Your task to perform on an android device: Open Yahoo.com Image 0: 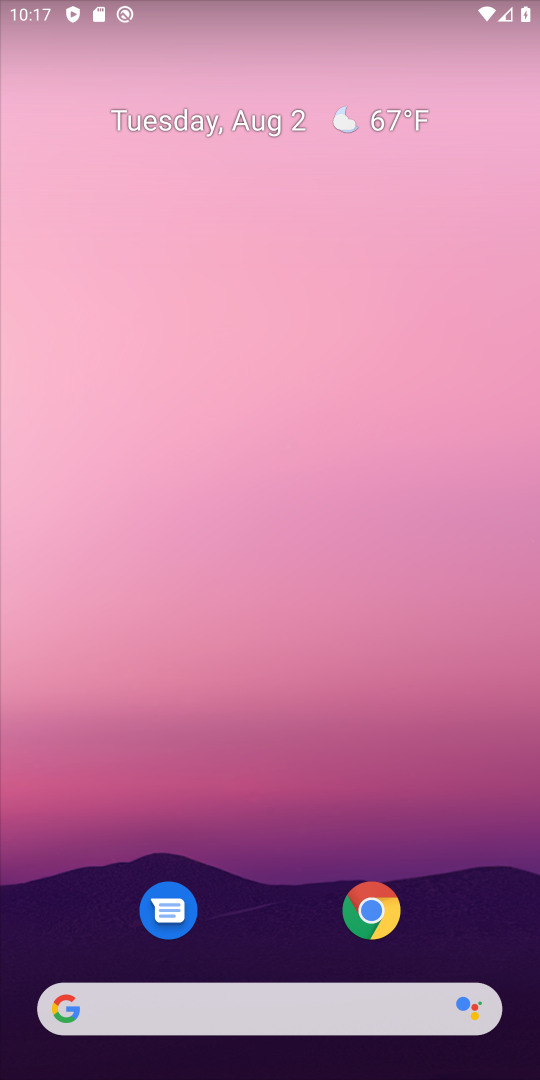
Step 0: drag from (305, 917) to (371, 347)
Your task to perform on an android device: Open Yahoo.com Image 1: 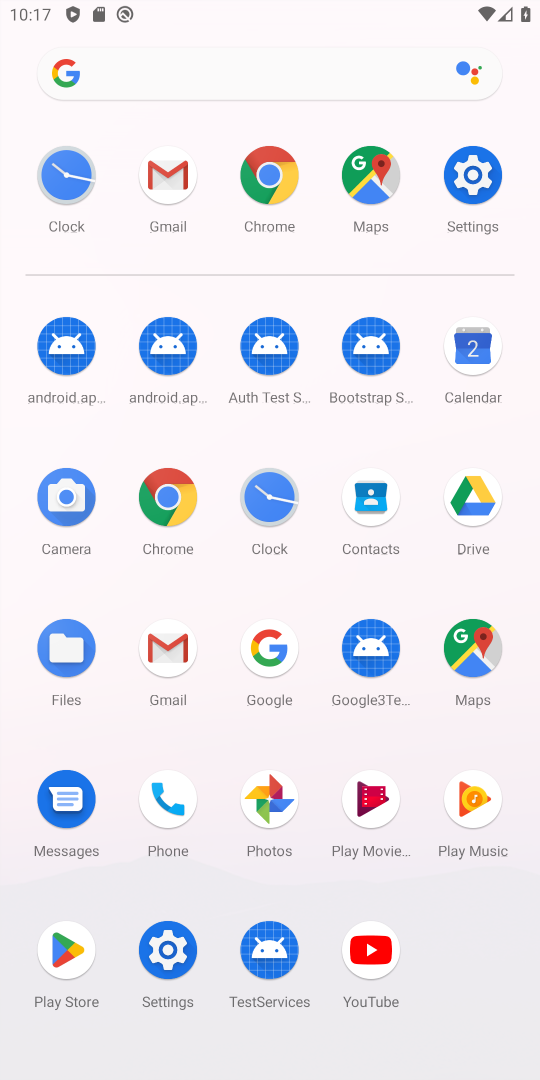
Step 1: click (261, 199)
Your task to perform on an android device: Open Yahoo.com Image 2: 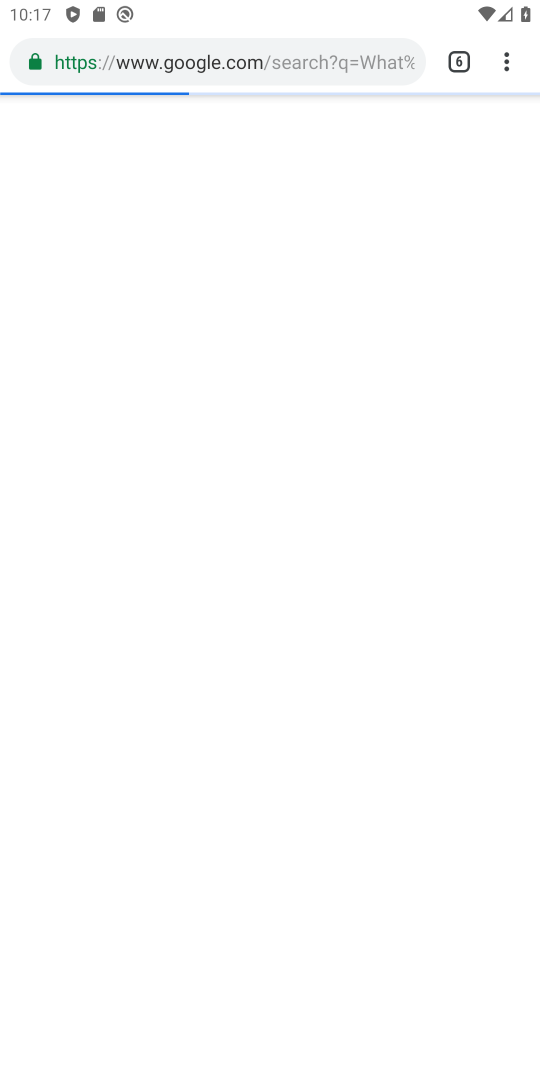
Step 2: click (520, 60)
Your task to perform on an android device: Open Yahoo.com Image 3: 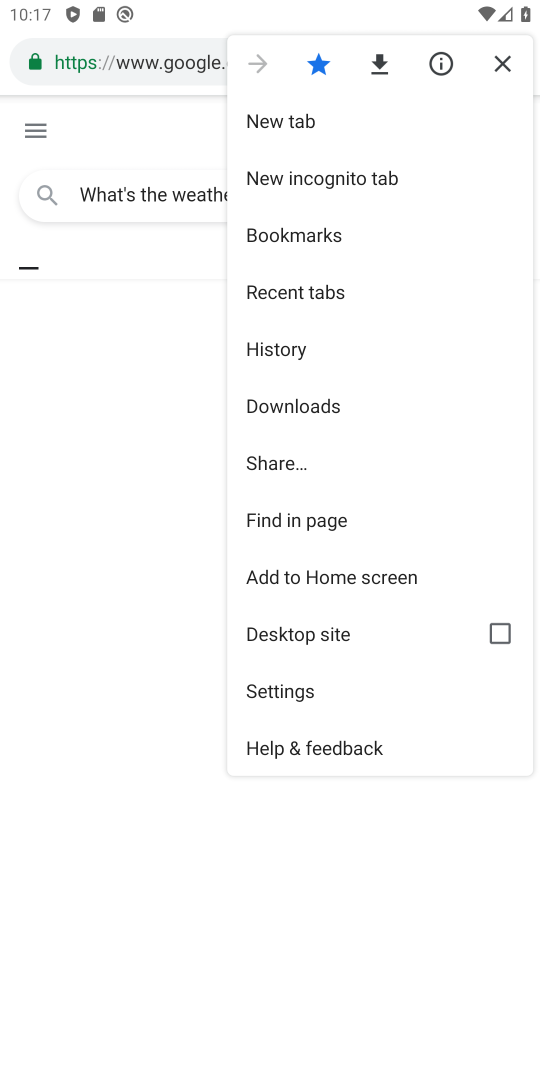
Step 3: click (272, 129)
Your task to perform on an android device: Open Yahoo.com Image 4: 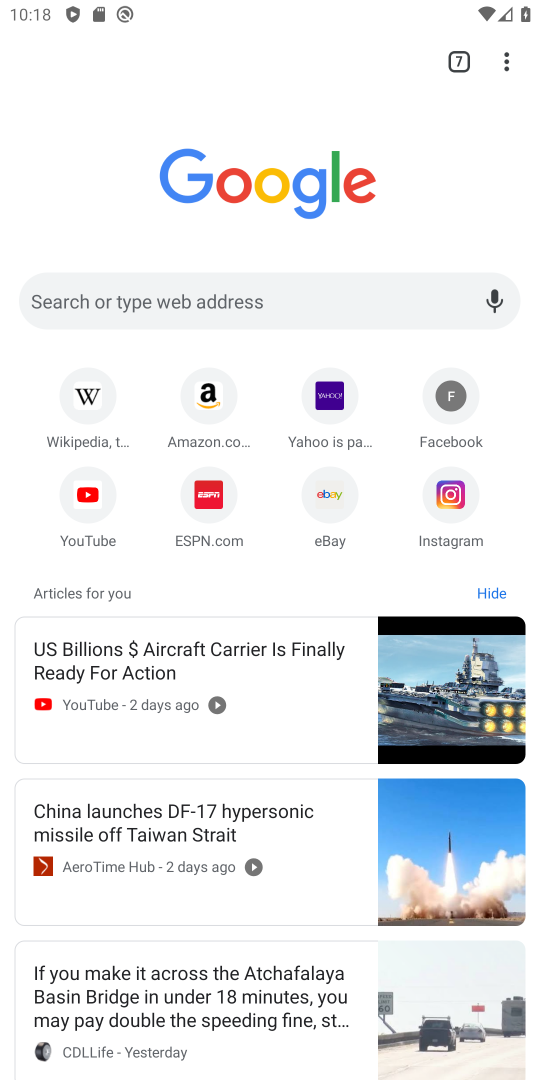
Step 4: click (332, 389)
Your task to perform on an android device: Open Yahoo.com Image 5: 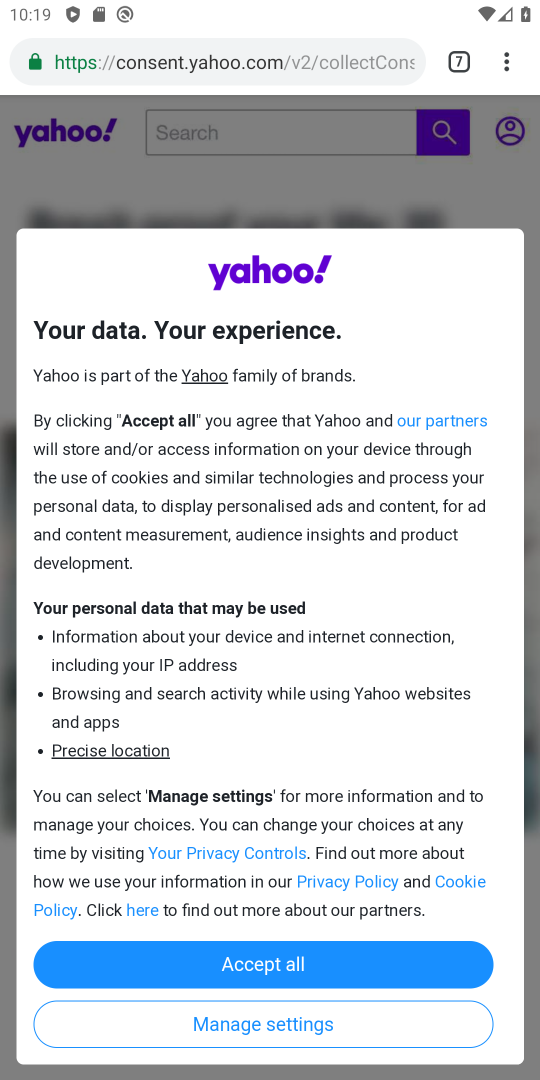
Step 5: task complete